Your task to perform on an android device: toggle location history Image 0: 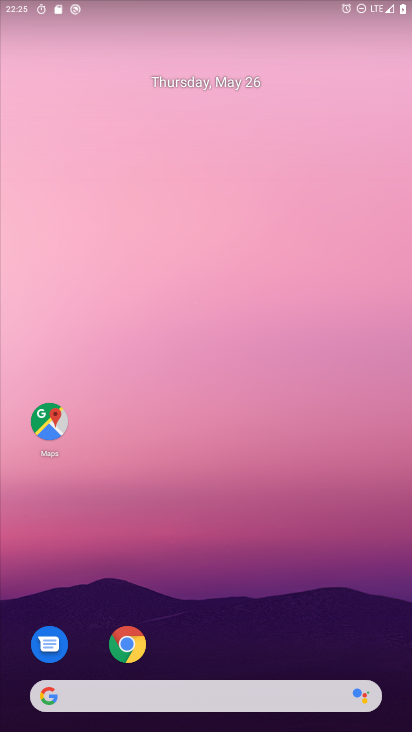
Step 0: drag from (191, 648) to (226, 437)
Your task to perform on an android device: toggle location history Image 1: 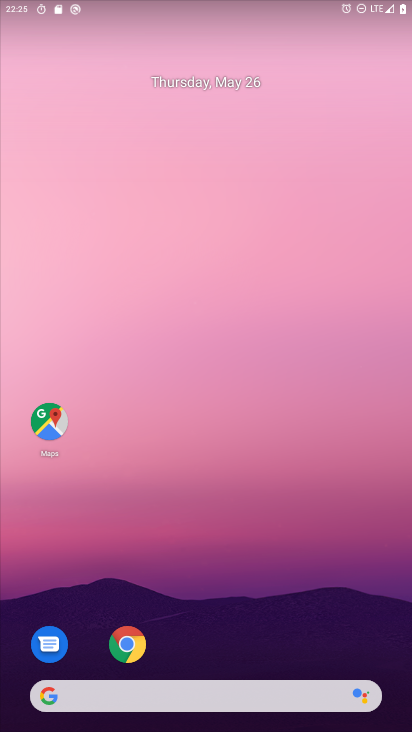
Step 1: drag from (195, 664) to (216, 263)
Your task to perform on an android device: toggle location history Image 2: 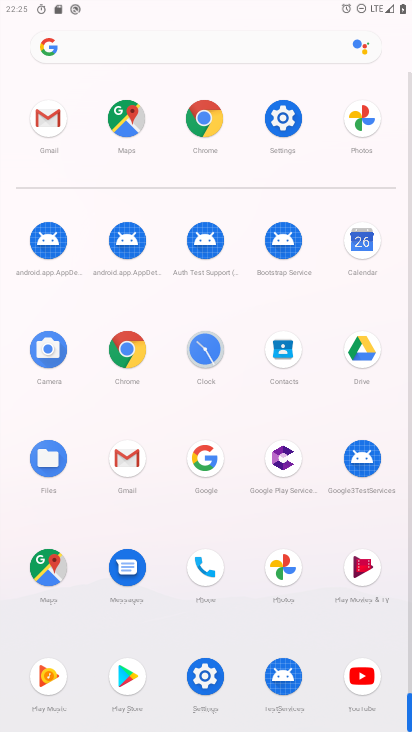
Step 2: click (280, 111)
Your task to perform on an android device: toggle location history Image 3: 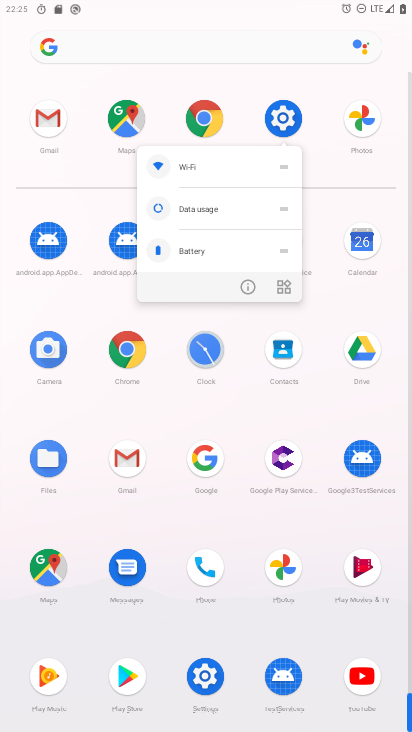
Step 3: click (247, 286)
Your task to perform on an android device: toggle location history Image 4: 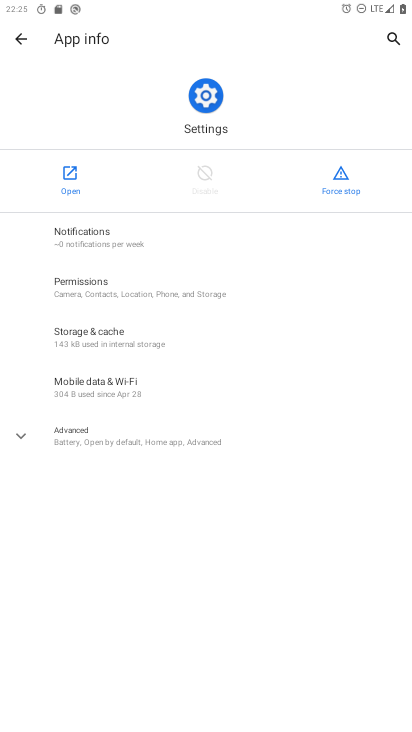
Step 4: click (77, 178)
Your task to perform on an android device: toggle location history Image 5: 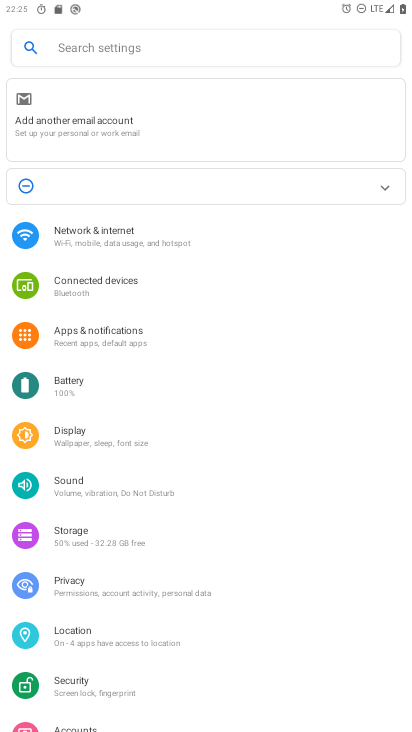
Step 5: click (123, 625)
Your task to perform on an android device: toggle location history Image 6: 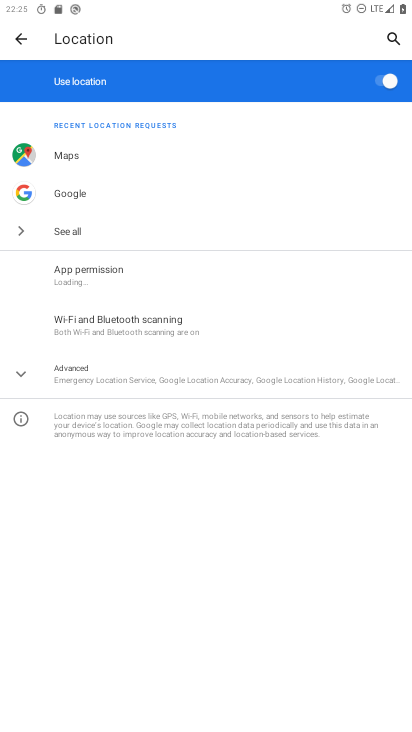
Step 6: click (80, 370)
Your task to perform on an android device: toggle location history Image 7: 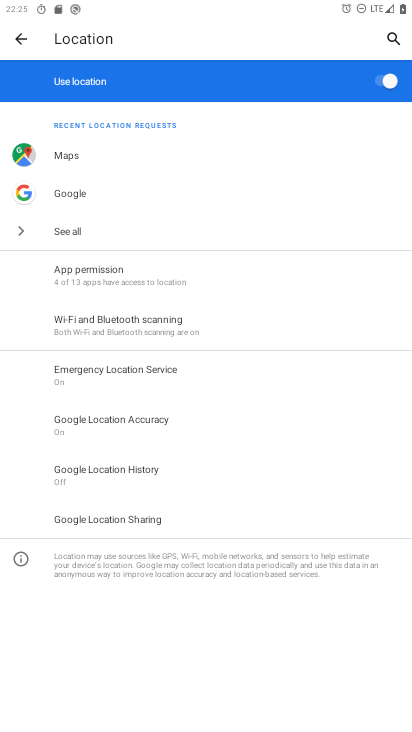
Step 7: click (137, 470)
Your task to perform on an android device: toggle location history Image 8: 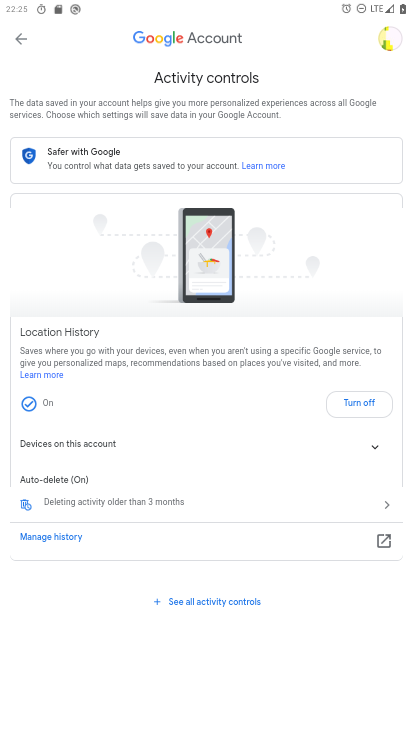
Step 8: click (364, 395)
Your task to perform on an android device: toggle location history Image 9: 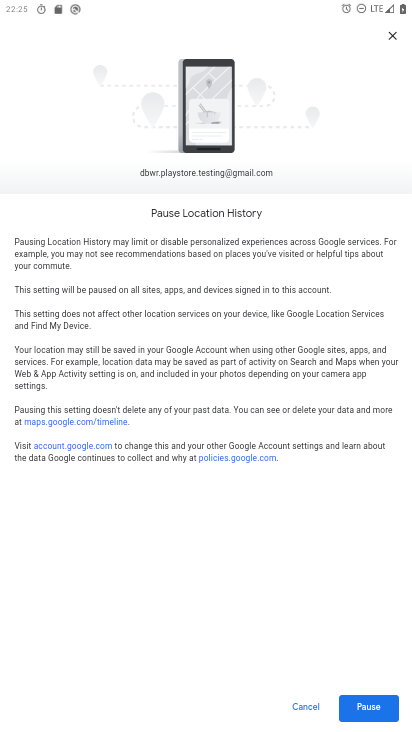
Step 9: click (354, 711)
Your task to perform on an android device: toggle location history Image 10: 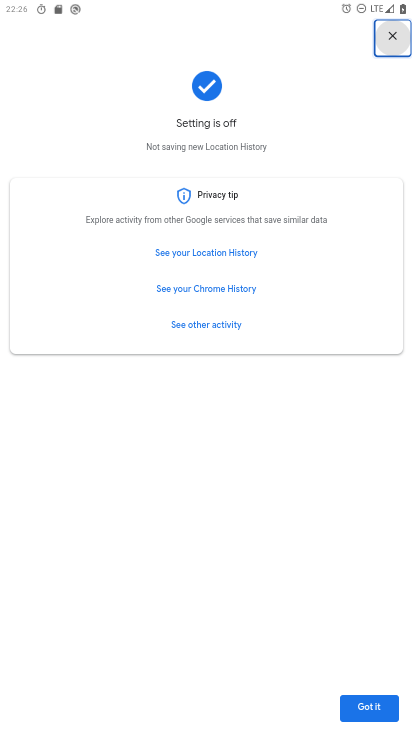
Step 10: click (367, 704)
Your task to perform on an android device: toggle location history Image 11: 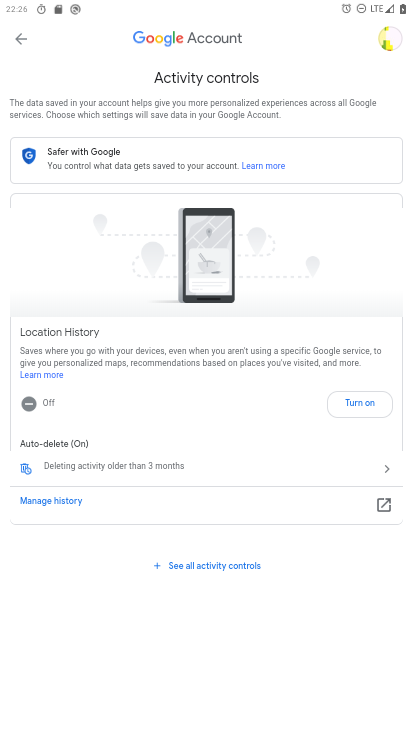
Step 11: task complete